Your task to perform on an android device: turn on airplane mode Image 0: 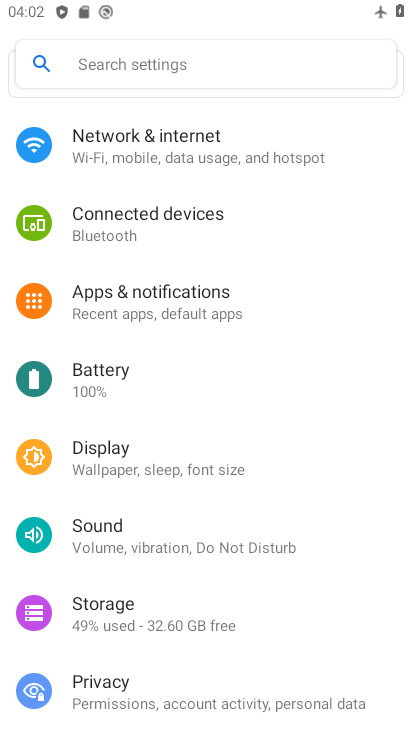
Step 0: click (131, 167)
Your task to perform on an android device: turn on airplane mode Image 1: 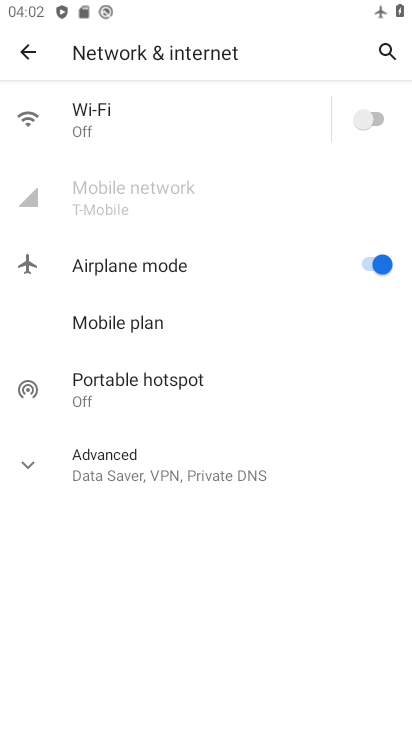
Step 1: task complete